Your task to perform on an android device: Search for seafood restaurants on Google Maps Image 0: 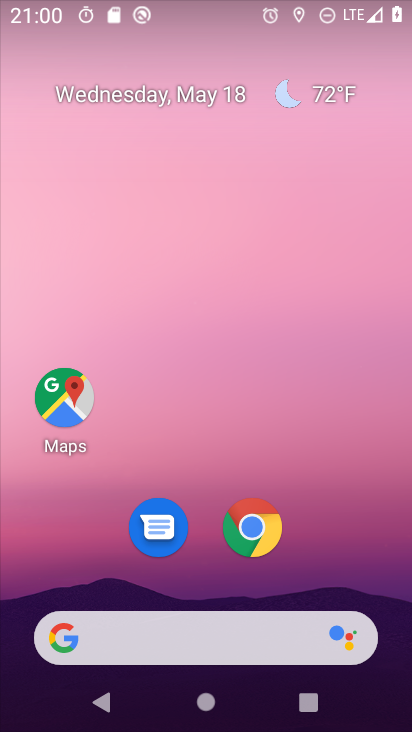
Step 0: drag from (388, 694) to (352, 260)
Your task to perform on an android device: Search for seafood restaurants on Google Maps Image 1: 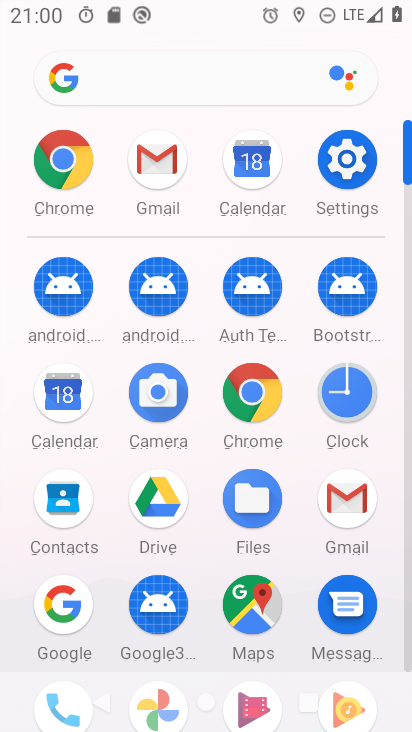
Step 1: click (235, 599)
Your task to perform on an android device: Search for seafood restaurants on Google Maps Image 2: 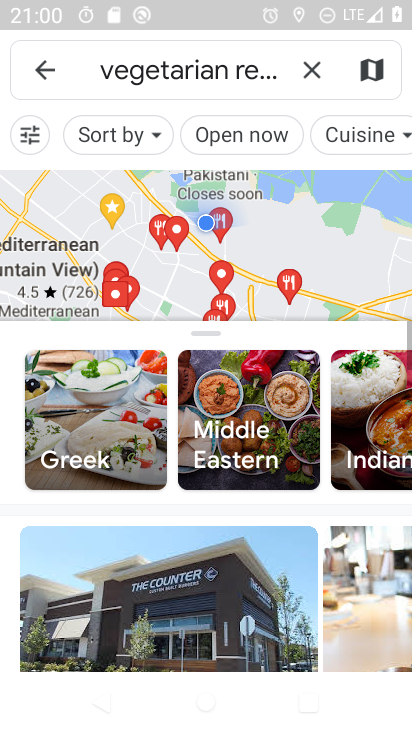
Step 2: click (305, 71)
Your task to perform on an android device: Search for seafood restaurants on Google Maps Image 3: 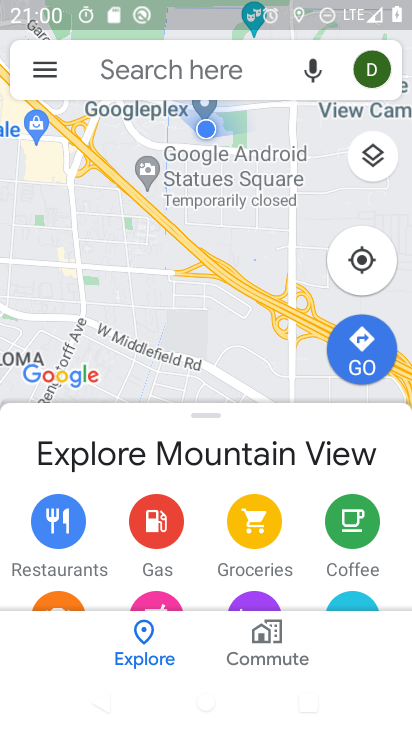
Step 3: click (224, 69)
Your task to perform on an android device: Search for seafood restaurants on Google Maps Image 4: 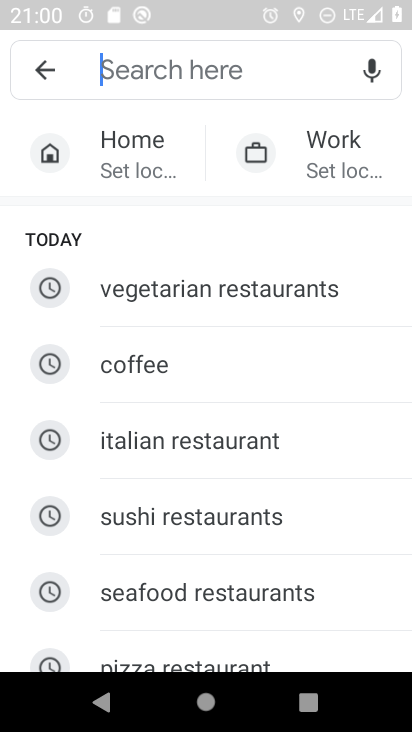
Step 4: type "seafood restaurants"
Your task to perform on an android device: Search for seafood restaurants on Google Maps Image 5: 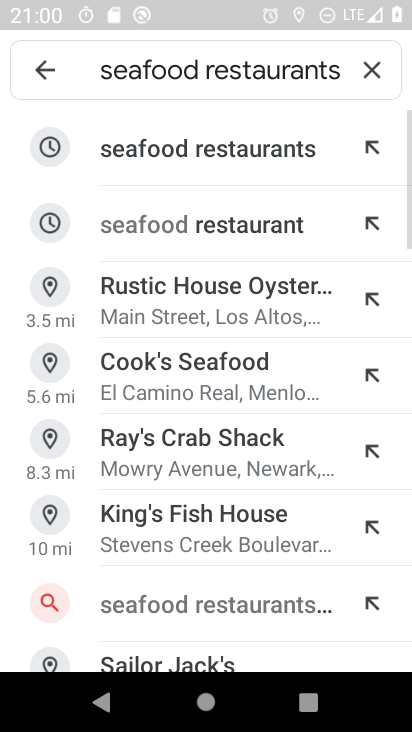
Step 5: click (195, 138)
Your task to perform on an android device: Search for seafood restaurants on Google Maps Image 6: 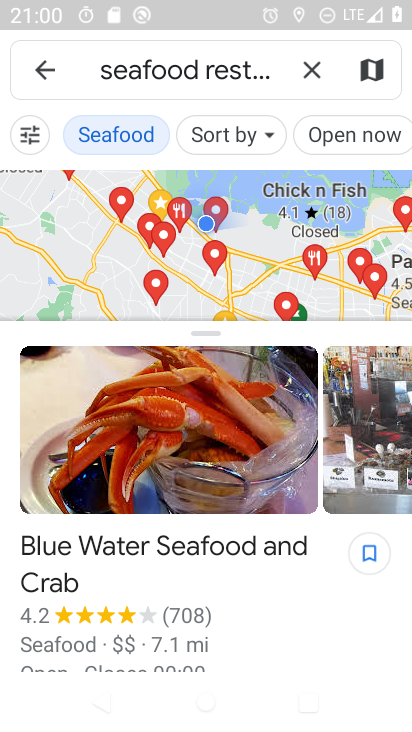
Step 6: task complete